Your task to perform on an android device: What is the recent news? Image 0: 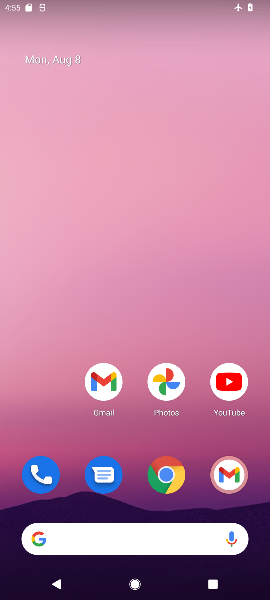
Step 0: press home button
Your task to perform on an android device: What is the recent news? Image 1: 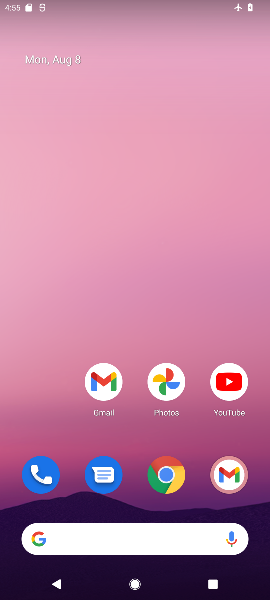
Step 1: task complete